Your task to perform on an android device: open a new tab in the chrome app Image 0: 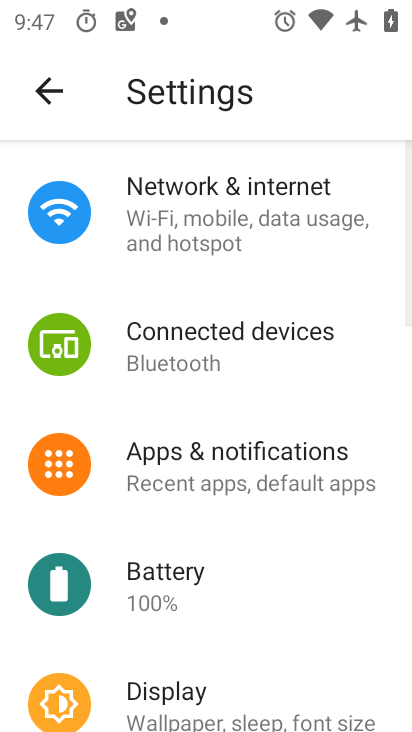
Step 0: press home button
Your task to perform on an android device: open a new tab in the chrome app Image 1: 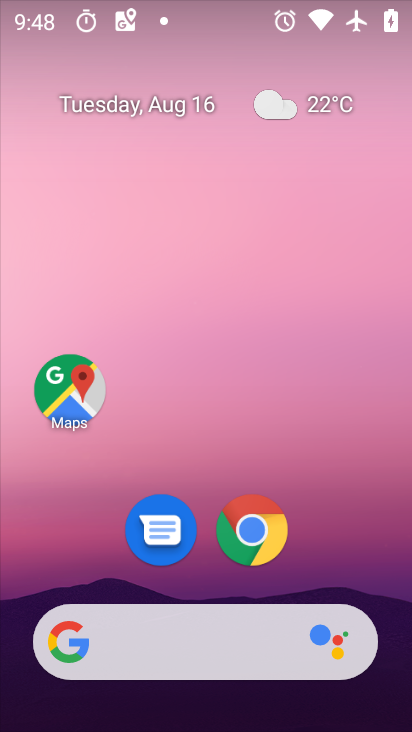
Step 1: drag from (338, 502) to (322, 87)
Your task to perform on an android device: open a new tab in the chrome app Image 2: 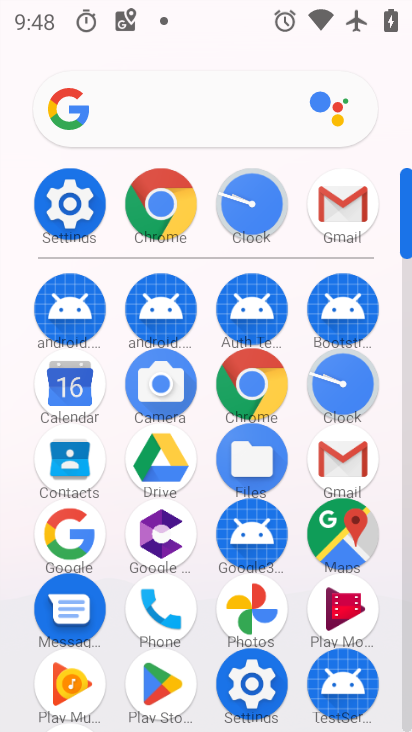
Step 2: click (262, 392)
Your task to perform on an android device: open a new tab in the chrome app Image 3: 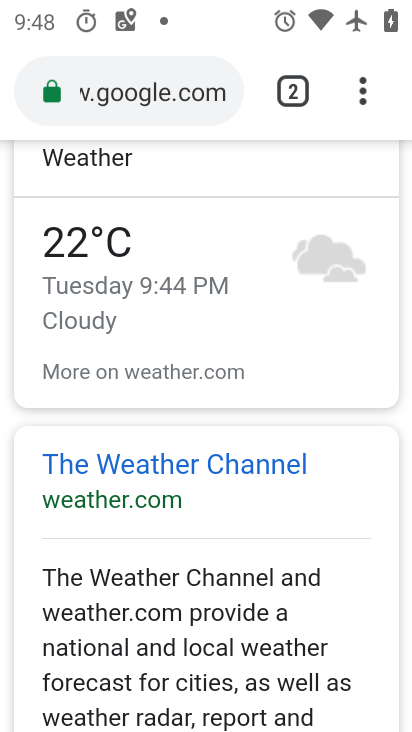
Step 3: task complete